Your task to perform on an android device: Search for pizza restaurants on Maps Image 0: 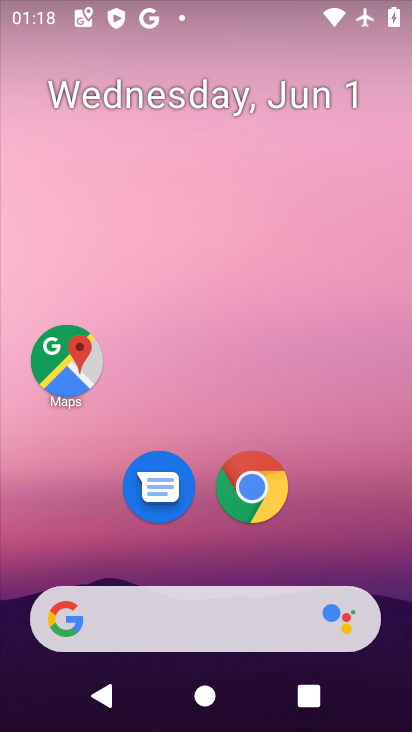
Step 0: drag from (296, 549) to (311, 232)
Your task to perform on an android device: Search for pizza restaurants on Maps Image 1: 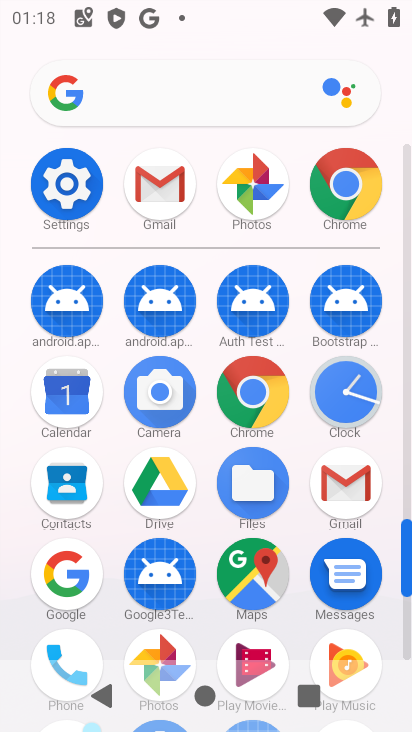
Step 1: click (249, 557)
Your task to perform on an android device: Search for pizza restaurants on Maps Image 2: 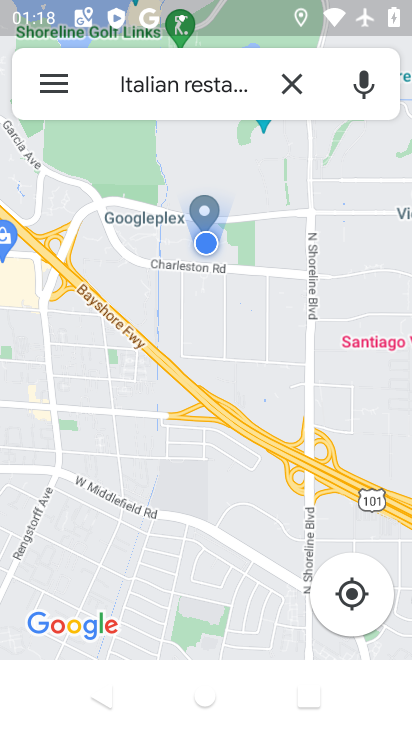
Step 2: click (294, 80)
Your task to perform on an android device: Search for pizza restaurants on Maps Image 3: 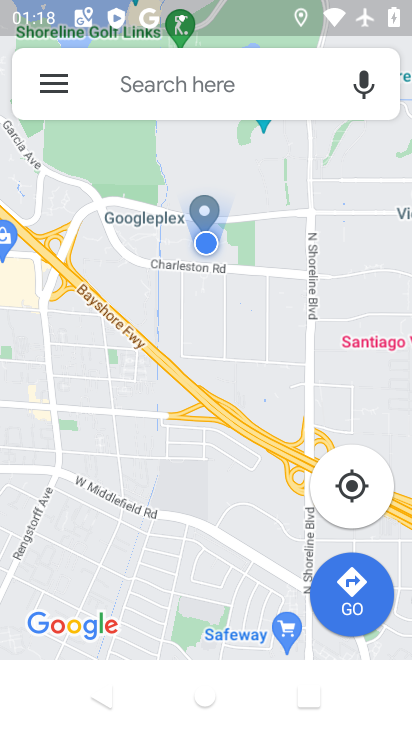
Step 3: click (217, 72)
Your task to perform on an android device: Search for pizza restaurants on Maps Image 4: 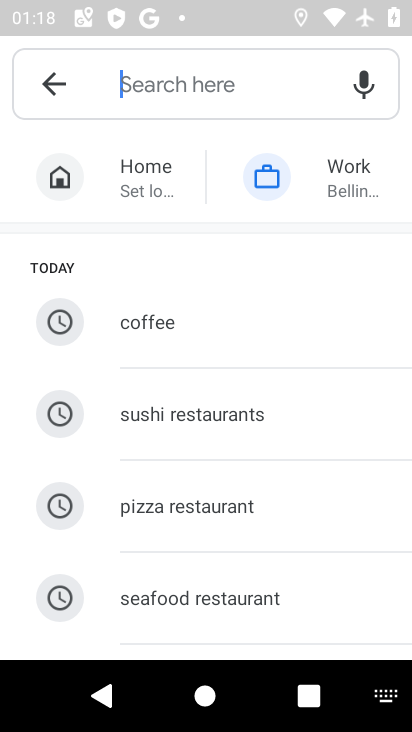
Step 4: click (181, 512)
Your task to perform on an android device: Search for pizza restaurants on Maps Image 5: 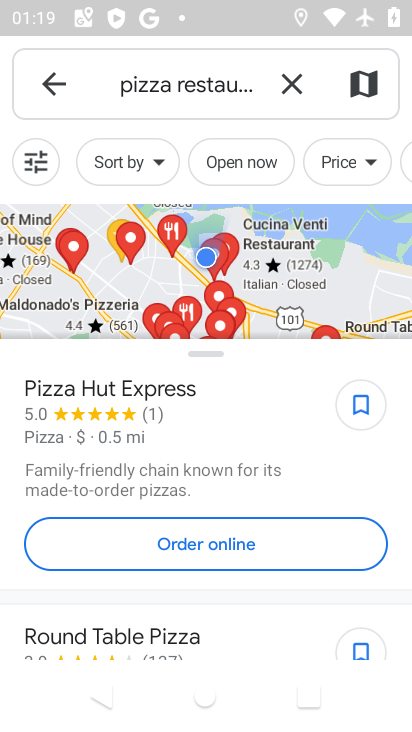
Step 5: task complete